Your task to perform on an android device: Open ESPN.com Image 0: 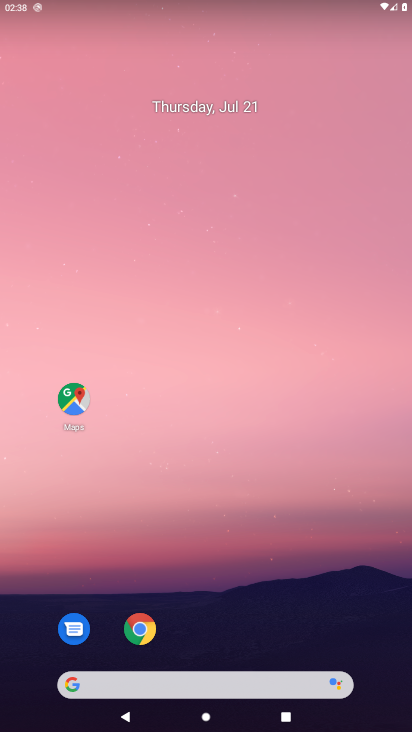
Step 0: click (109, 690)
Your task to perform on an android device: Open ESPN.com Image 1: 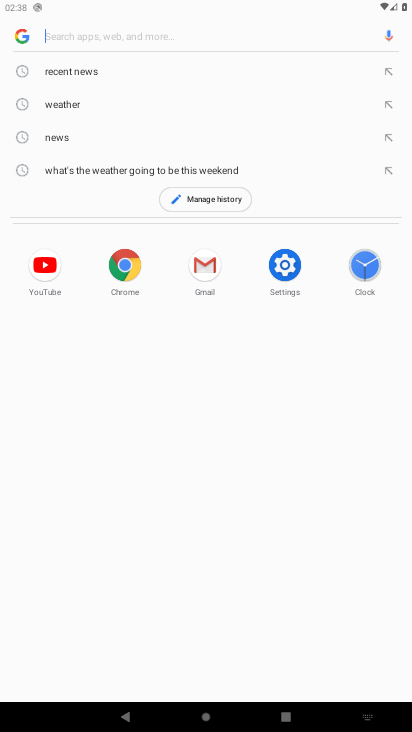
Step 1: type "ESPN.com"
Your task to perform on an android device: Open ESPN.com Image 2: 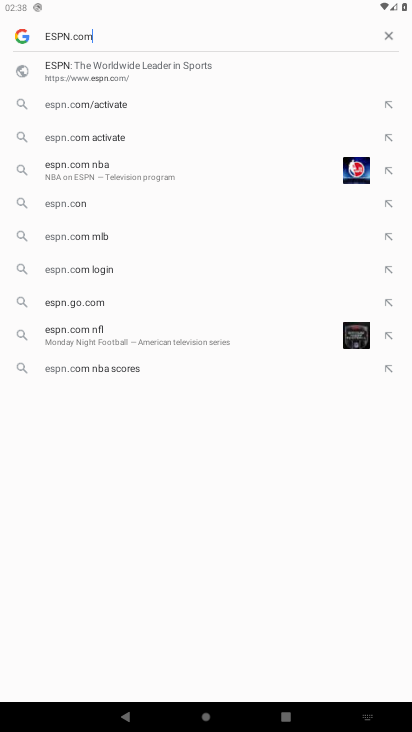
Step 2: type ""
Your task to perform on an android device: Open ESPN.com Image 3: 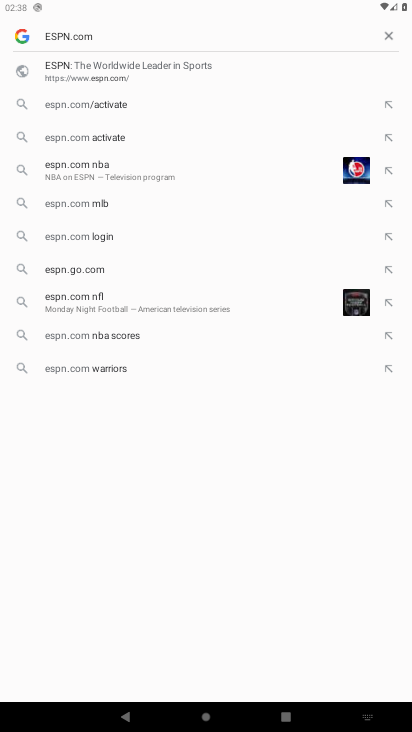
Step 3: click (72, 86)
Your task to perform on an android device: Open ESPN.com Image 4: 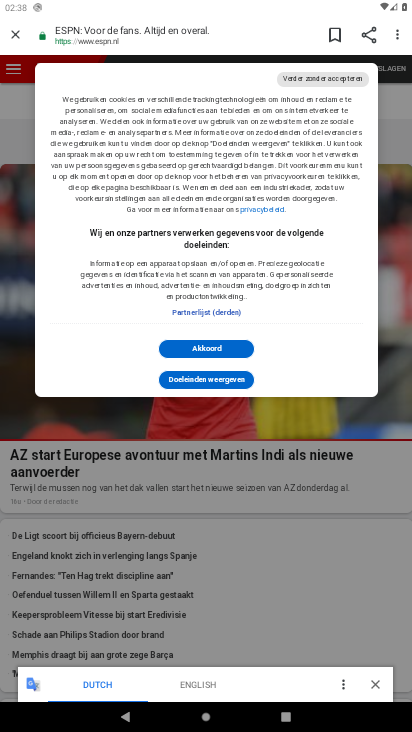
Step 4: task complete